Your task to perform on an android device: change the upload size in google photos Image 0: 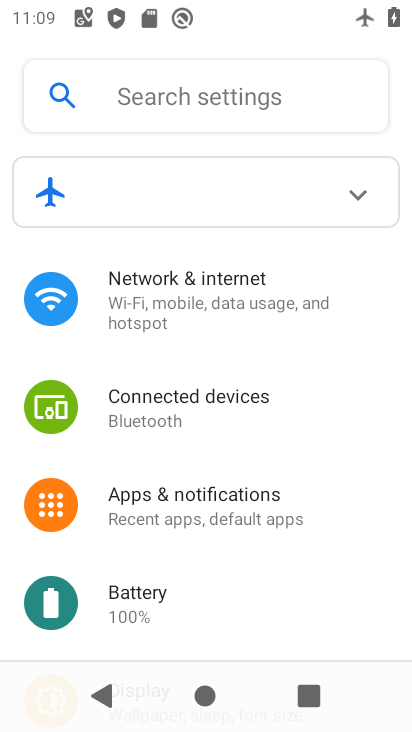
Step 0: press home button
Your task to perform on an android device: change the upload size in google photos Image 1: 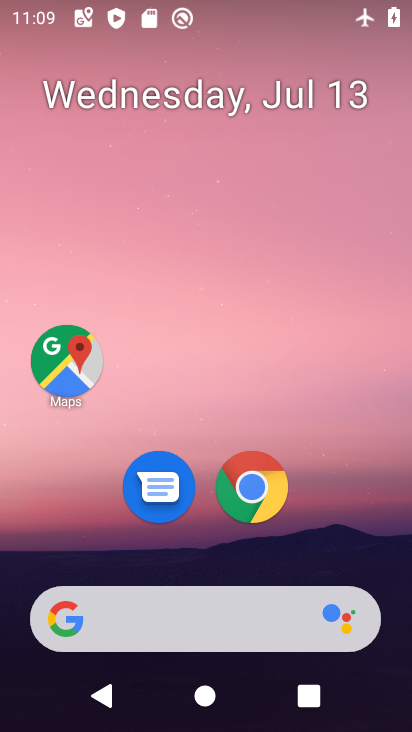
Step 1: drag from (155, 562) to (142, 38)
Your task to perform on an android device: change the upload size in google photos Image 2: 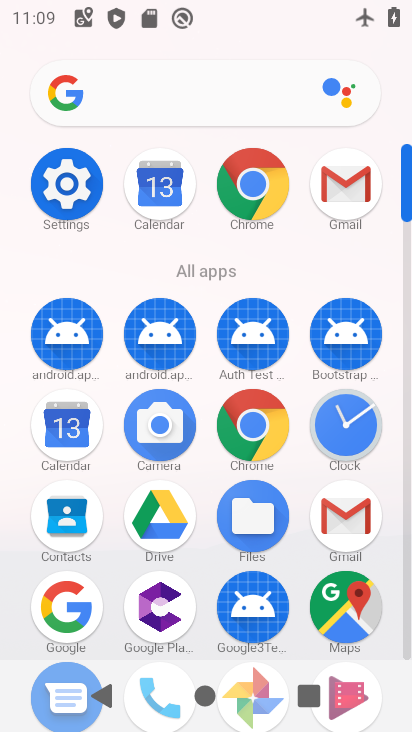
Step 2: drag from (208, 558) to (205, 47)
Your task to perform on an android device: change the upload size in google photos Image 3: 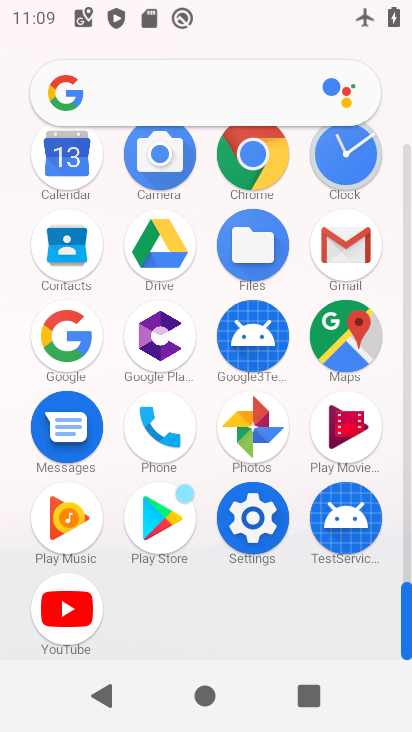
Step 3: click (259, 427)
Your task to perform on an android device: change the upload size in google photos Image 4: 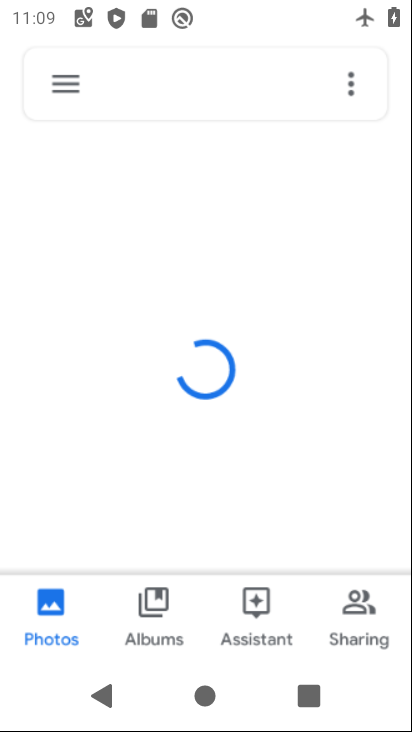
Step 4: click (68, 96)
Your task to perform on an android device: change the upload size in google photos Image 5: 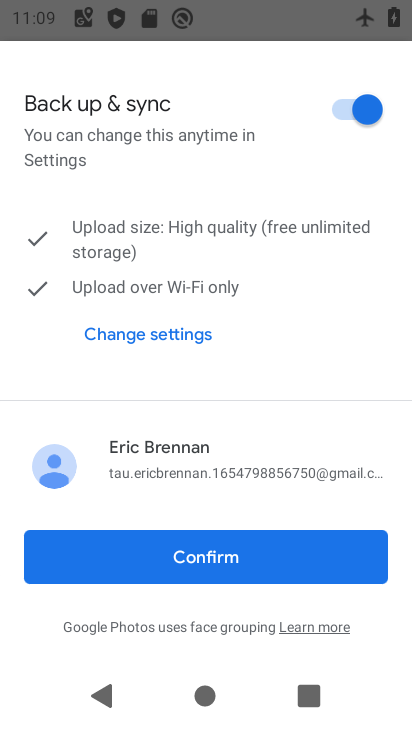
Step 5: click (181, 586)
Your task to perform on an android device: change the upload size in google photos Image 6: 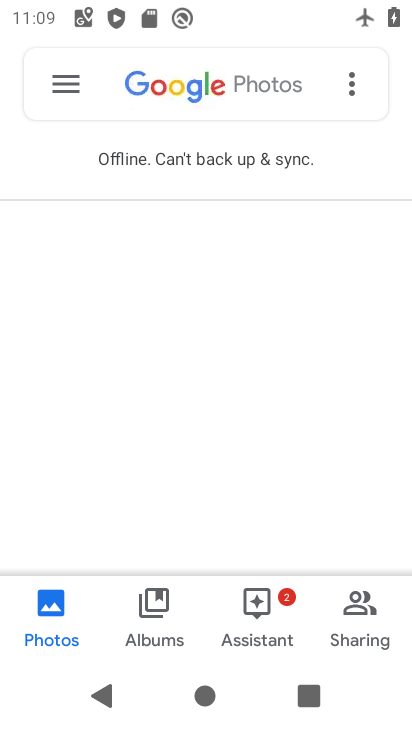
Step 6: click (64, 93)
Your task to perform on an android device: change the upload size in google photos Image 7: 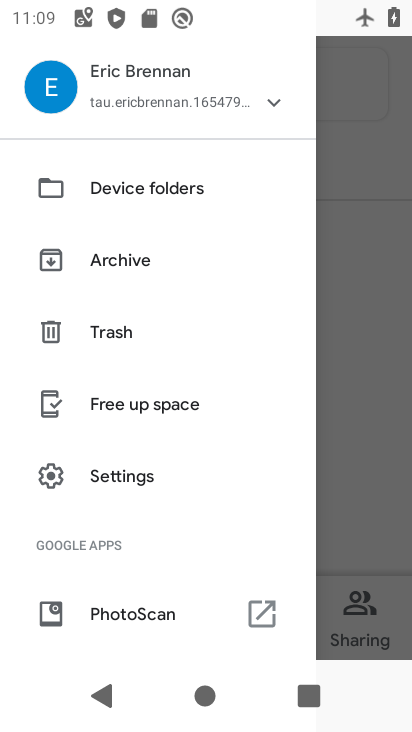
Step 7: drag from (161, 530) to (195, 270)
Your task to perform on an android device: change the upload size in google photos Image 8: 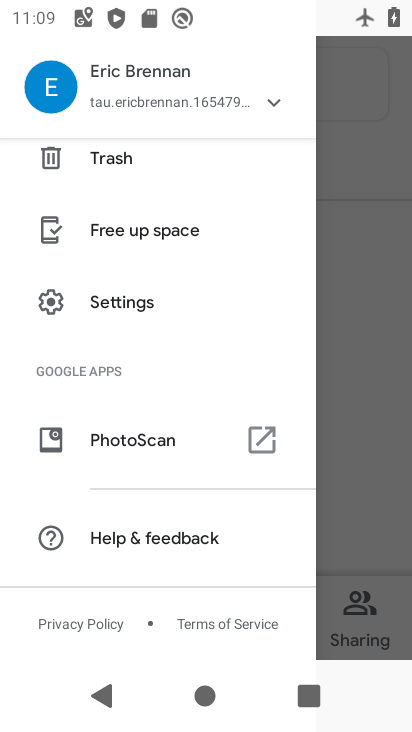
Step 8: click (118, 295)
Your task to perform on an android device: change the upload size in google photos Image 9: 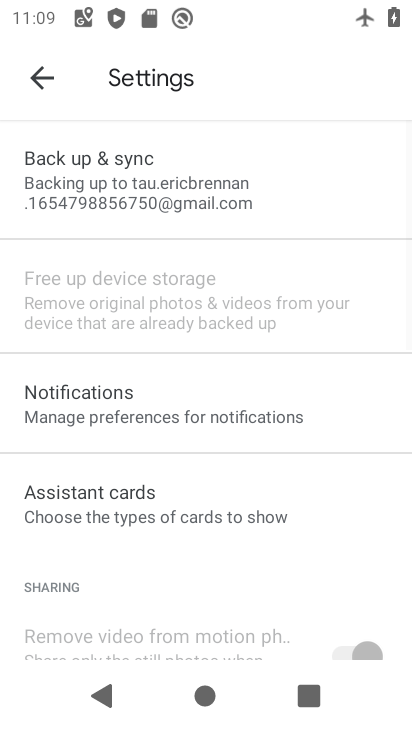
Step 9: click (133, 184)
Your task to perform on an android device: change the upload size in google photos Image 10: 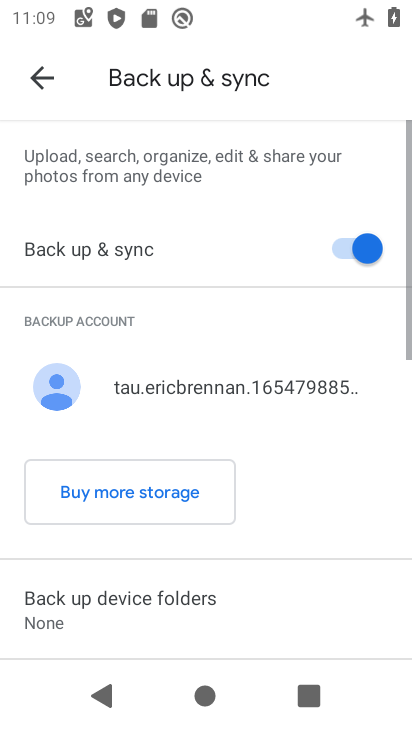
Step 10: drag from (154, 586) to (150, 188)
Your task to perform on an android device: change the upload size in google photos Image 11: 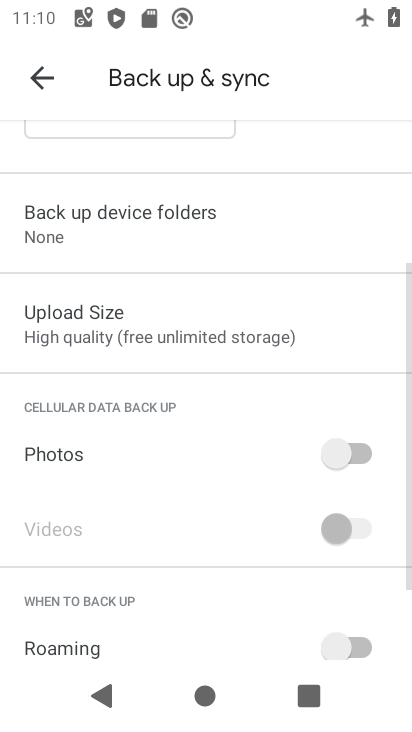
Step 11: click (155, 332)
Your task to perform on an android device: change the upload size in google photos Image 12: 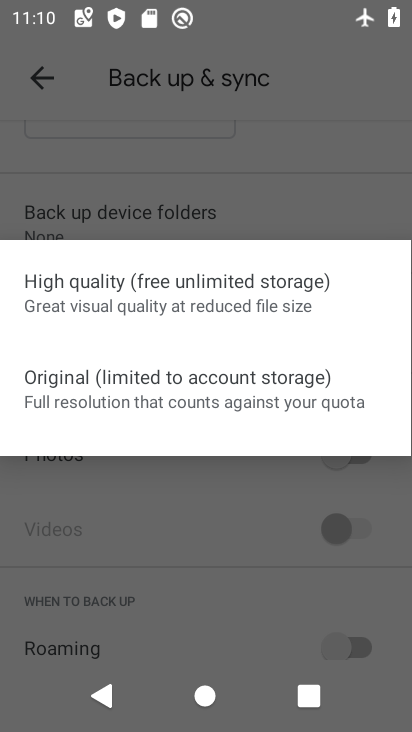
Step 12: click (109, 405)
Your task to perform on an android device: change the upload size in google photos Image 13: 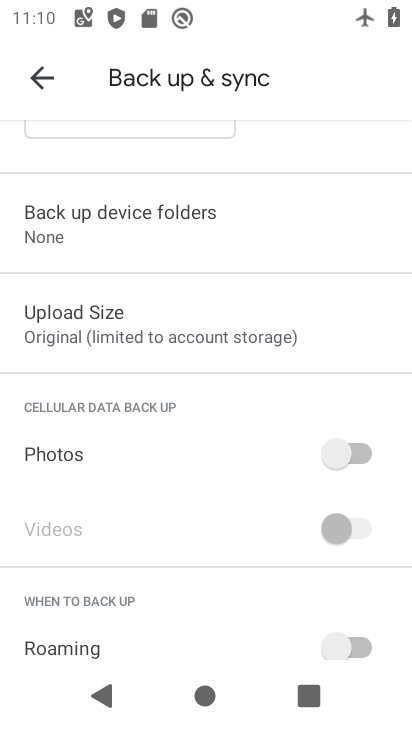
Step 13: task complete